Your task to perform on an android device: open chrome and create a bookmark for the current page Image 0: 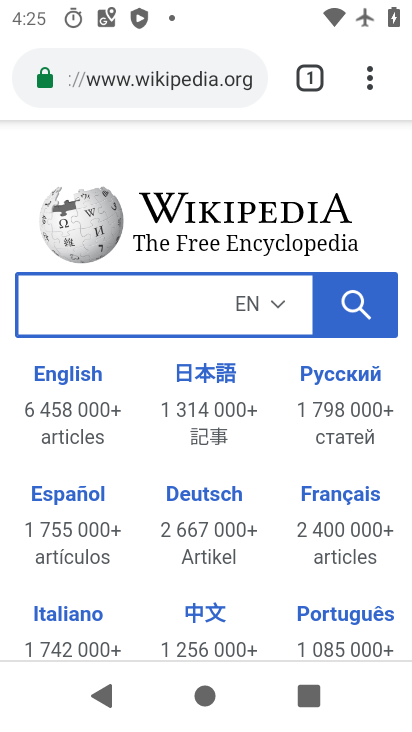
Step 0: drag from (366, 76) to (153, 78)
Your task to perform on an android device: open chrome and create a bookmark for the current page Image 1: 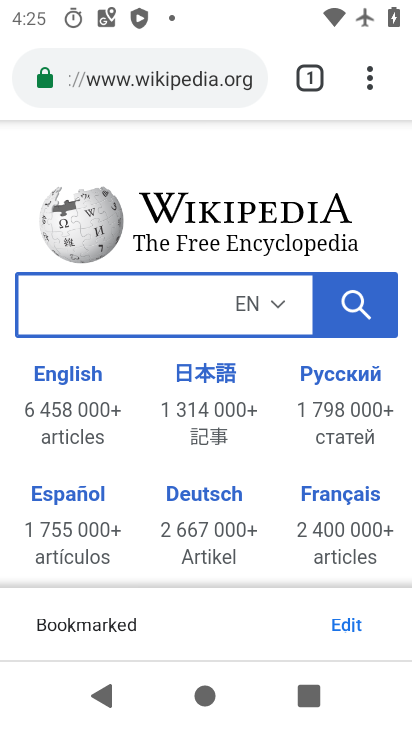
Step 1: task complete